Your task to perform on an android device: add a label to a message in the gmail app Image 0: 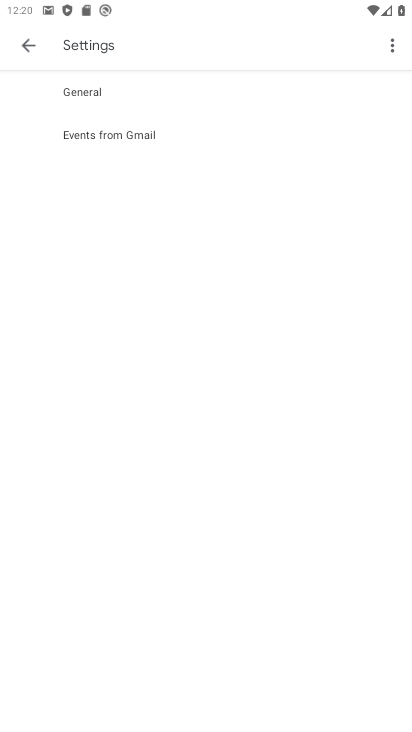
Step 0: press home button
Your task to perform on an android device: add a label to a message in the gmail app Image 1: 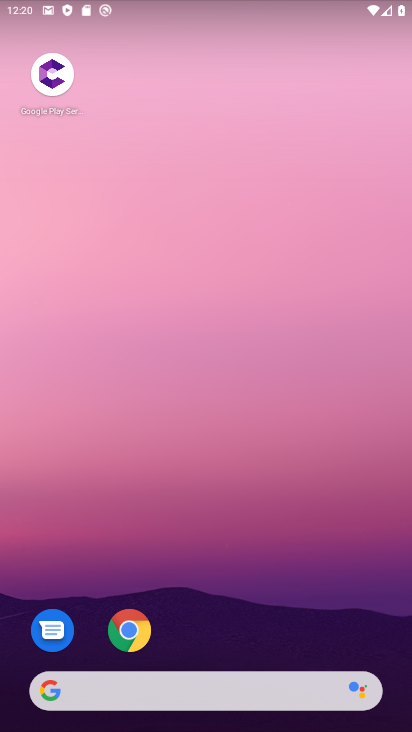
Step 1: drag from (241, 648) to (219, 71)
Your task to perform on an android device: add a label to a message in the gmail app Image 2: 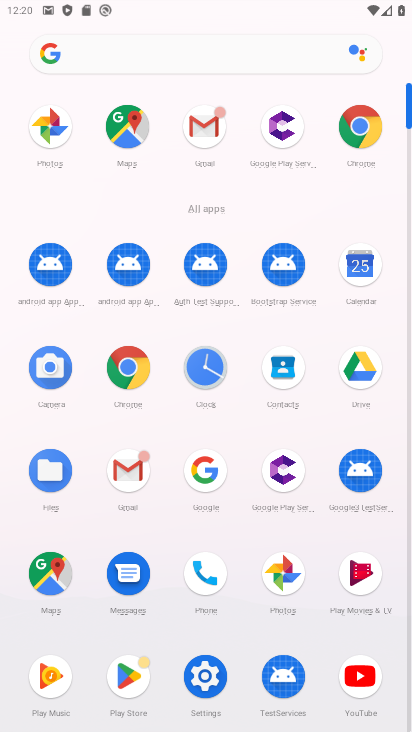
Step 2: click (214, 119)
Your task to perform on an android device: add a label to a message in the gmail app Image 3: 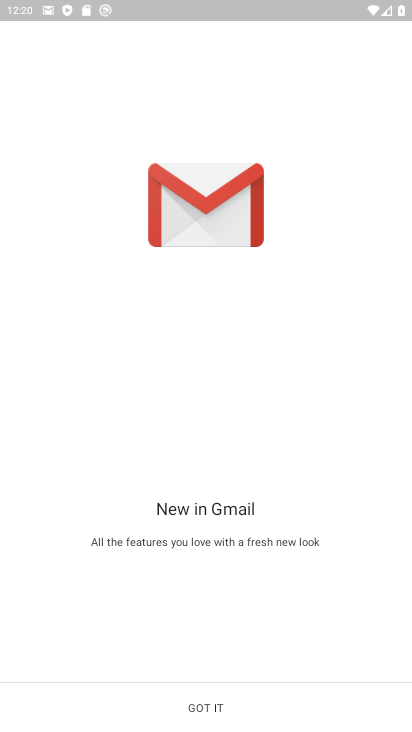
Step 3: click (208, 700)
Your task to perform on an android device: add a label to a message in the gmail app Image 4: 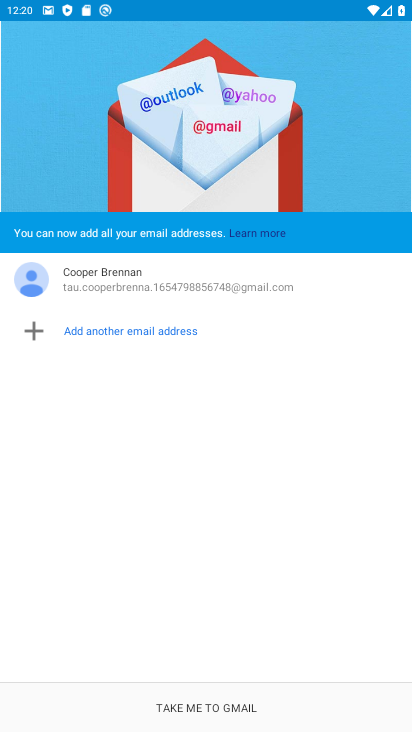
Step 4: click (208, 700)
Your task to perform on an android device: add a label to a message in the gmail app Image 5: 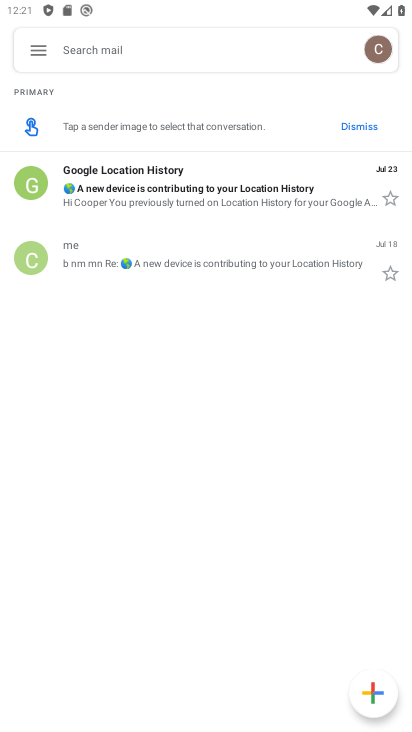
Step 5: click (247, 192)
Your task to perform on an android device: add a label to a message in the gmail app Image 6: 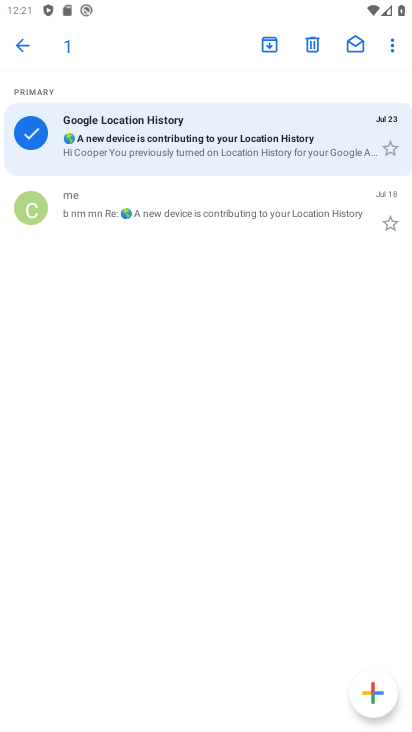
Step 6: click (391, 39)
Your task to perform on an android device: add a label to a message in the gmail app Image 7: 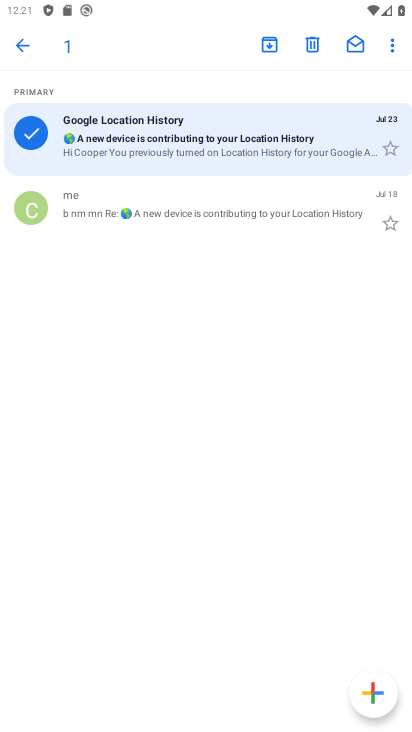
Step 7: click (392, 41)
Your task to perform on an android device: add a label to a message in the gmail app Image 8: 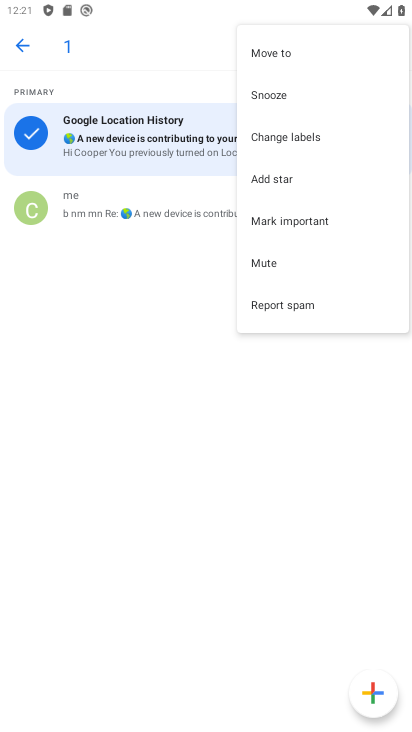
Step 8: click (334, 124)
Your task to perform on an android device: add a label to a message in the gmail app Image 9: 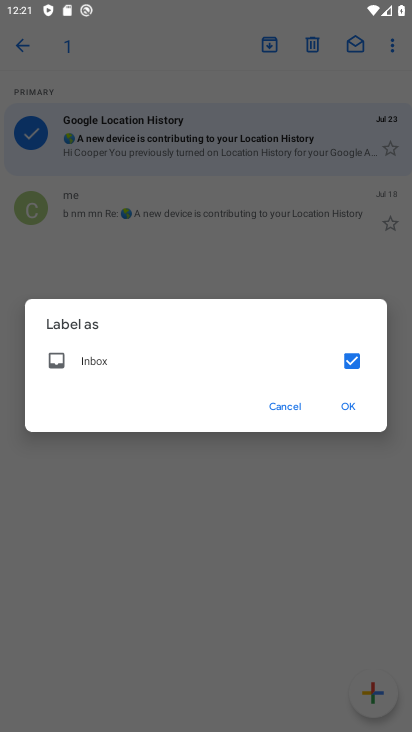
Step 9: click (345, 408)
Your task to perform on an android device: add a label to a message in the gmail app Image 10: 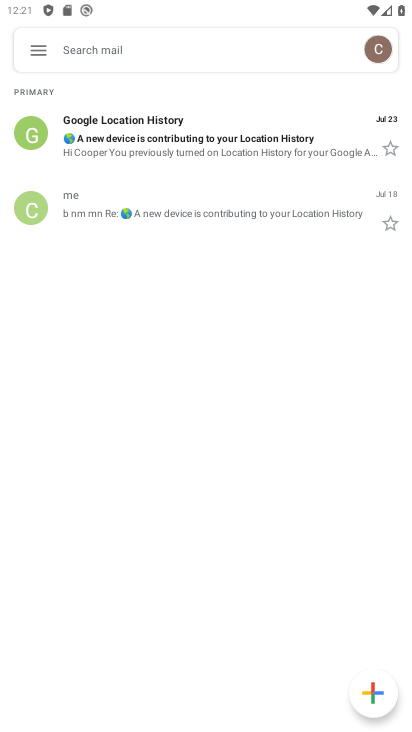
Step 10: task complete